Your task to perform on an android device: toggle notifications settings in the gmail app Image 0: 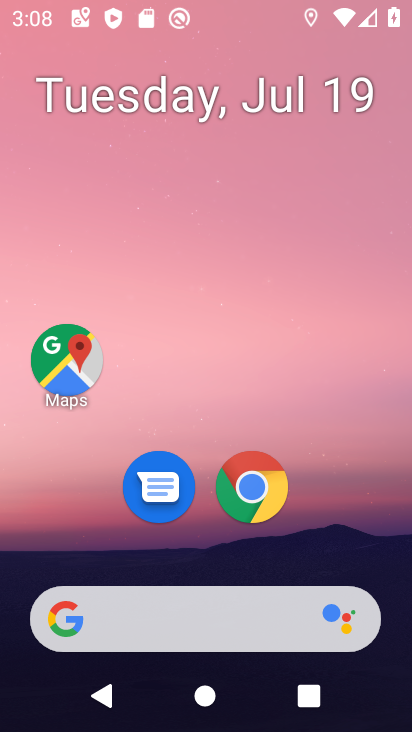
Step 0: drag from (183, 555) to (272, 82)
Your task to perform on an android device: toggle notifications settings in the gmail app Image 1: 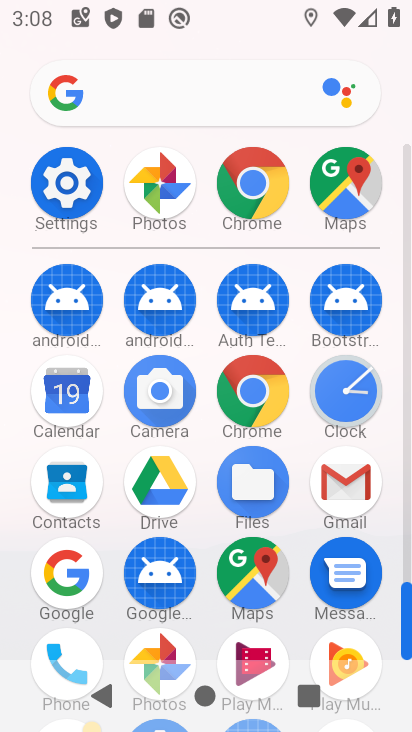
Step 1: click (356, 476)
Your task to perform on an android device: toggle notifications settings in the gmail app Image 2: 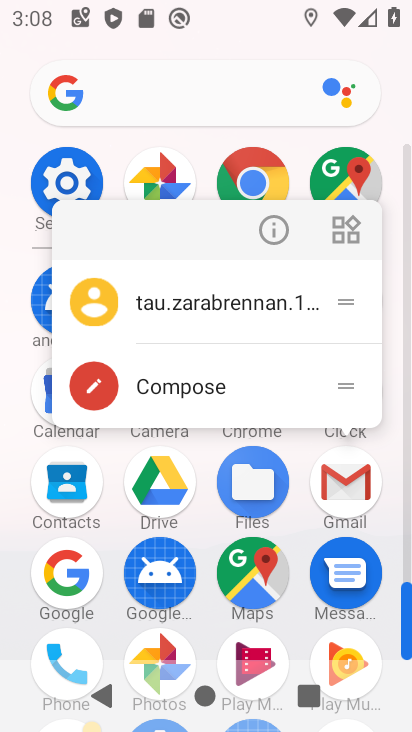
Step 2: click (268, 223)
Your task to perform on an android device: toggle notifications settings in the gmail app Image 3: 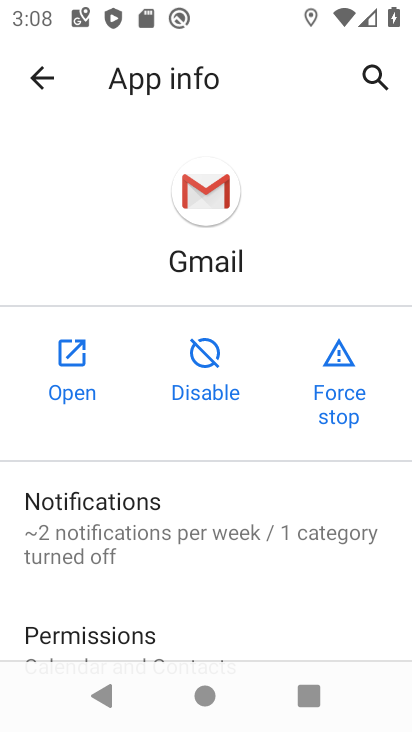
Step 3: click (91, 517)
Your task to perform on an android device: toggle notifications settings in the gmail app Image 4: 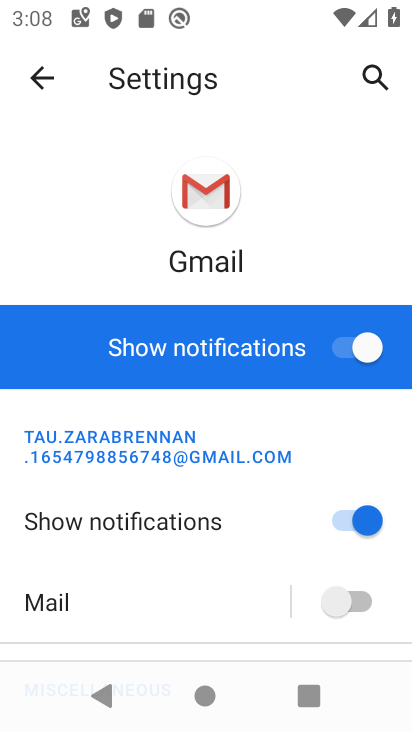
Step 4: click (355, 337)
Your task to perform on an android device: toggle notifications settings in the gmail app Image 5: 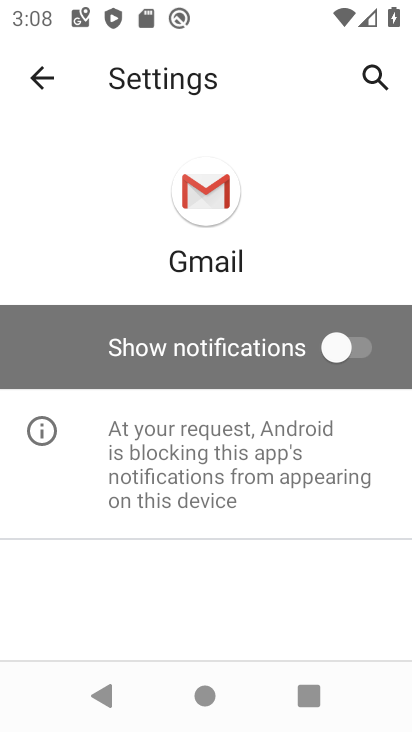
Step 5: task complete